Your task to perform on an android device: choose inbox layout in the gmail app Image 0: 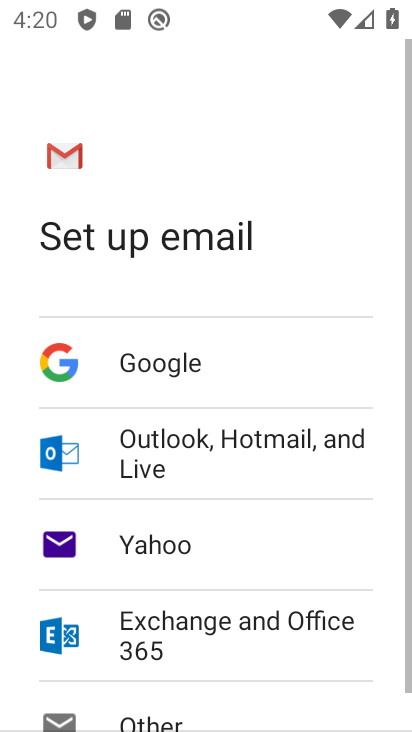
Step 0: press home button
Your task to perform on an android device: choose inbox layout in the gmail app Image 1: 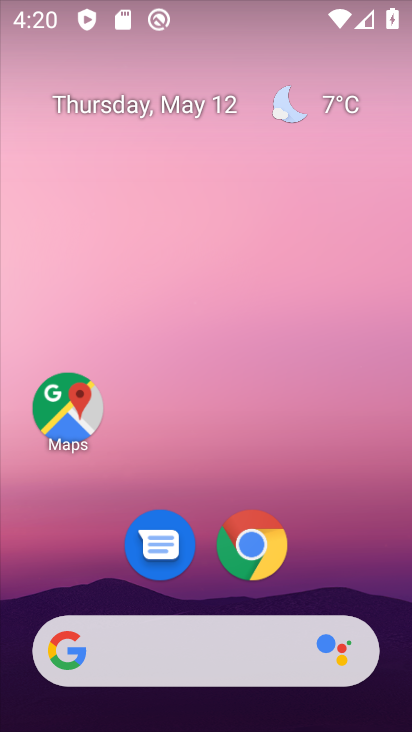
Step 1: drag from (355, 569) to (281, 146)
Your task to perform on an android device: choose inbox layout in the gmail app Image 2: 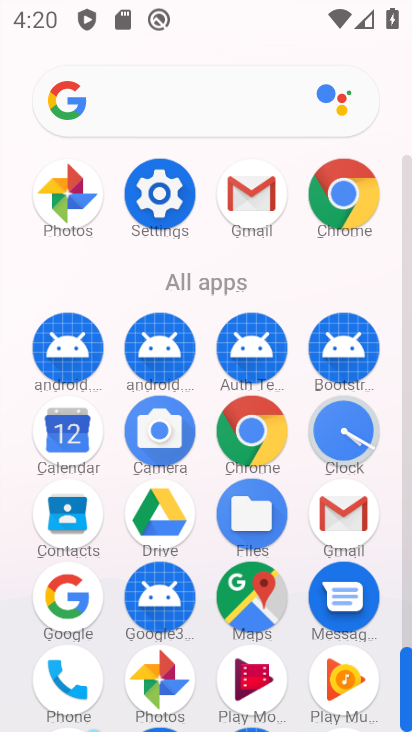
Step 2: drag from (326, 460) to (231, 105)
Your task to perform on an android device: choose inbox layout in the gmail app Image 3: 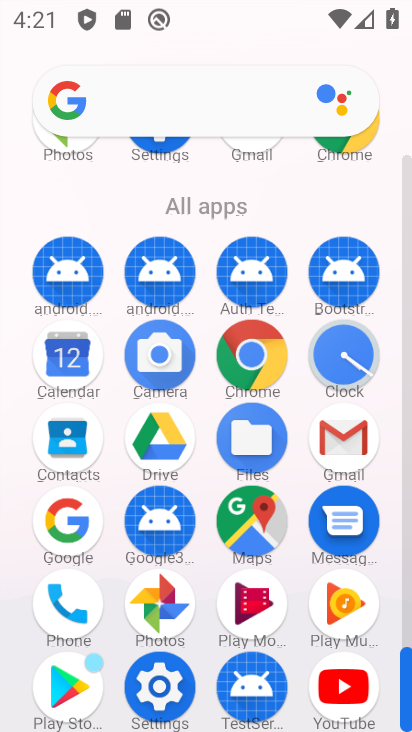
Step 3: drag from (198, 623) to (178, 174)
Your task to perform on an android device: choose inbox layout in the gmail app Image 4: 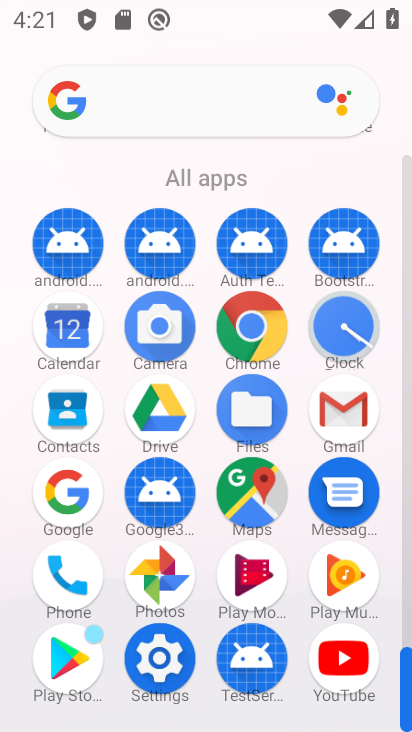
Step 4: click (178, 174)
Your task to perform on an android device: choose inbox layout in the gmail app Image 5: 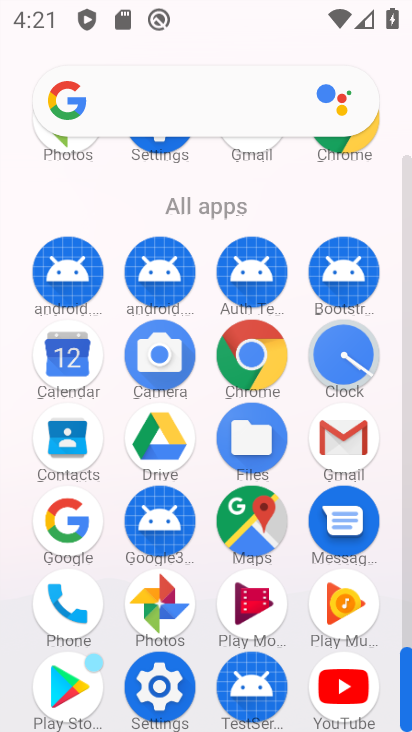
Step 5: click (363, 430)
Your task to perform on an android device: choose inbox layout in the gmail app Image 6: 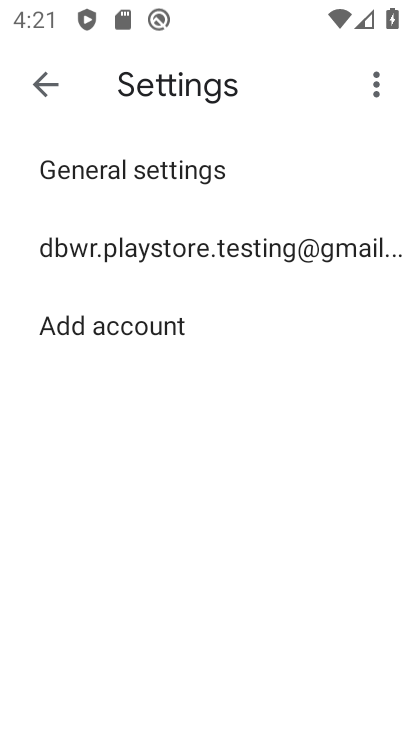
Step 6: click (223, 257)
Your task to perform on an android device: choose inbox layout in the gmail app Image 7: 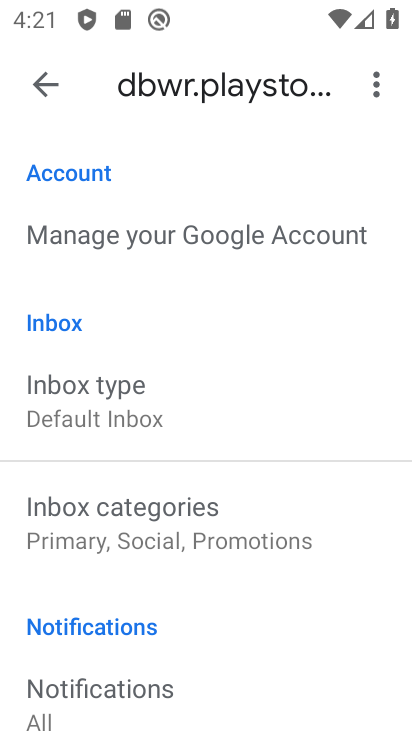
Step 7: drag from (173, 568) to (258, 176)
Your task to perform on an android device: choose inbox layout in the gmail app Image 8: 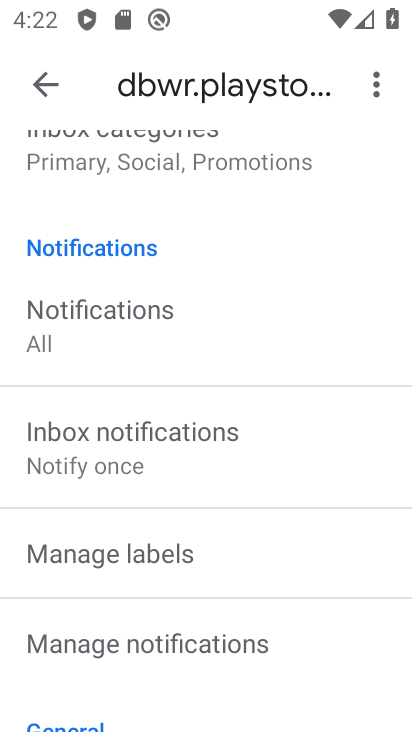
Step 8: drag from (208, 293) to (212, 670)
Your task to perform on an android device: choose inbox layout in the gmail app Image 9: 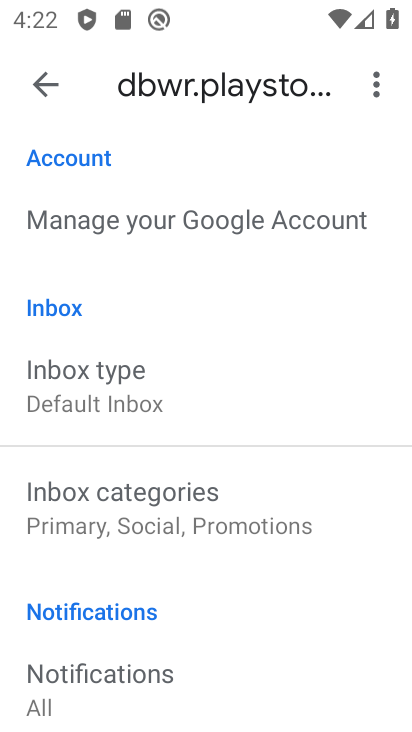
Step 9: drag from (221, 357) to (224, 621)
Your task to perform on an android device: choose inbox layout in the gmail app Image 10: 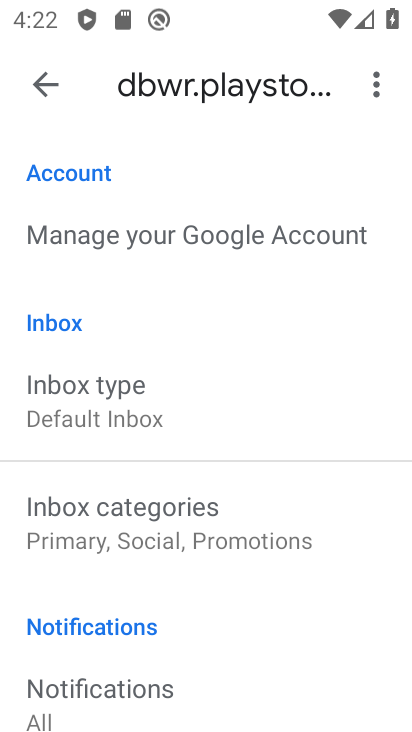
Step 10: click (81, 411)
Your task to perform on an android device: choose inbox layout in the gmail app Image 11: 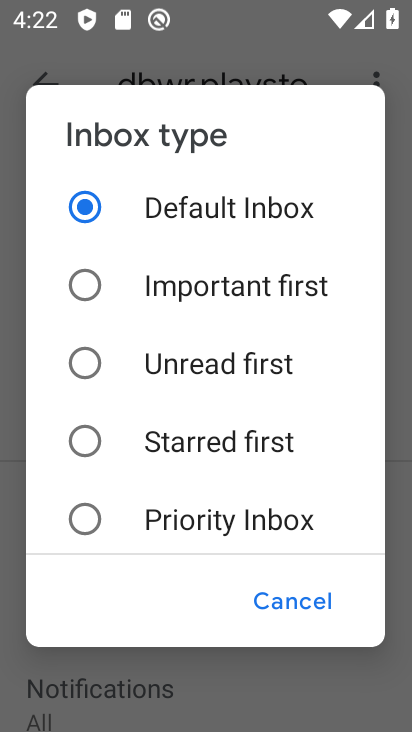
Step 11: task complete